Your task to perform on an android device: Go to Wikipedia Image 0: 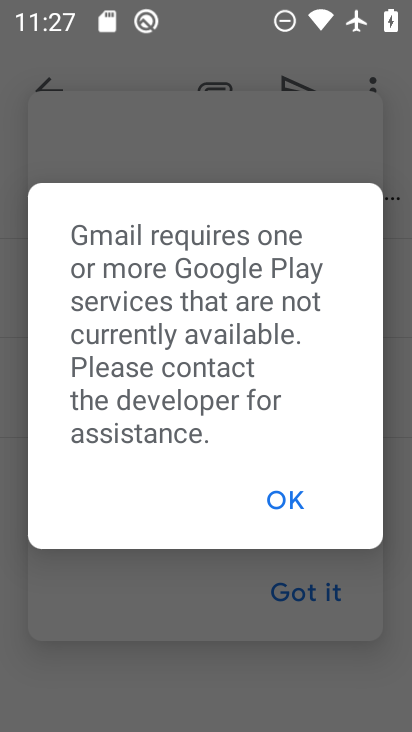
Step 0: press home button
Your task to perform on an android device: Go to Wikipedia Image 1: 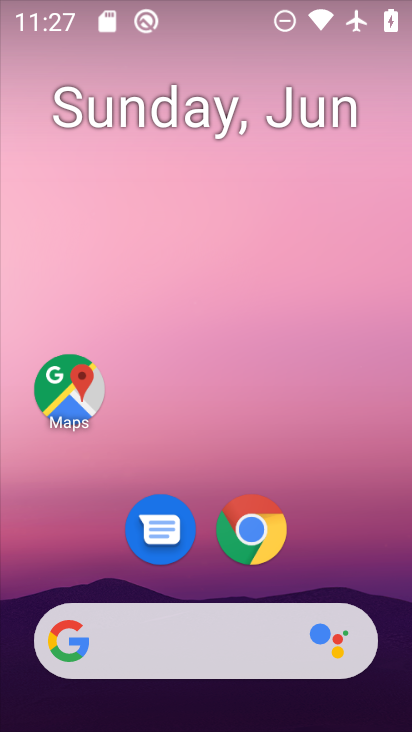
Step 1: click (251, 528)
Your task to perform on an android device: Go to Wikipedia Image 2: 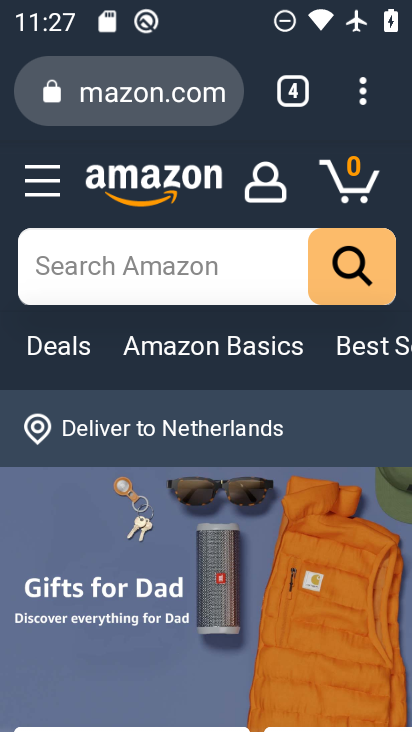
Step 2: click (194, 65)
Your task to perform on an android device: Go to Wikipedia Image 3: 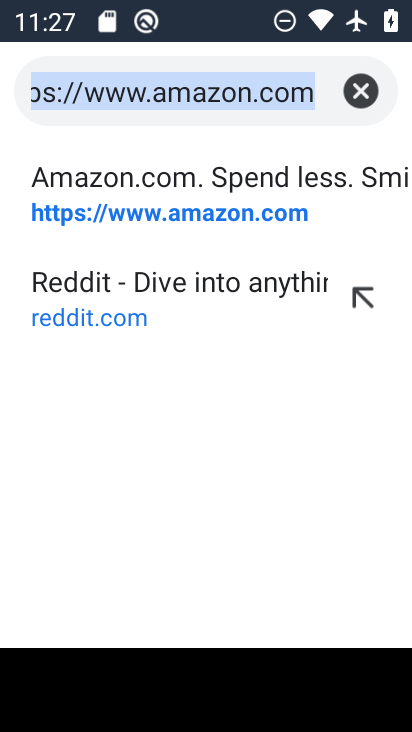
Step 3: click (362, 85)
Your task to perform on an android device: Go to Wikipedia Image 4: 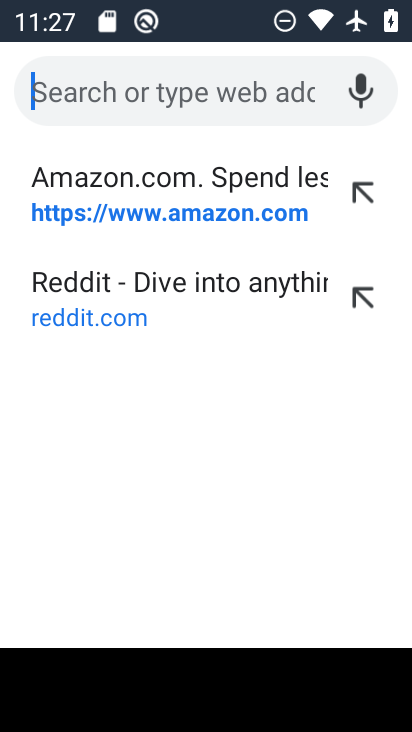
Step 4: type "wikipedia"
Your task to perform on an android device: Go to Wikipedia Image 5: 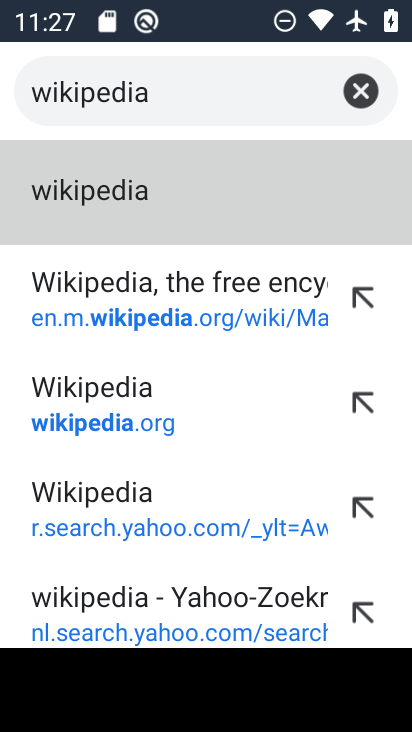
Step 5: click (94, 183)
Your task to perform on an android device: Go to Wikipedia Image 6: 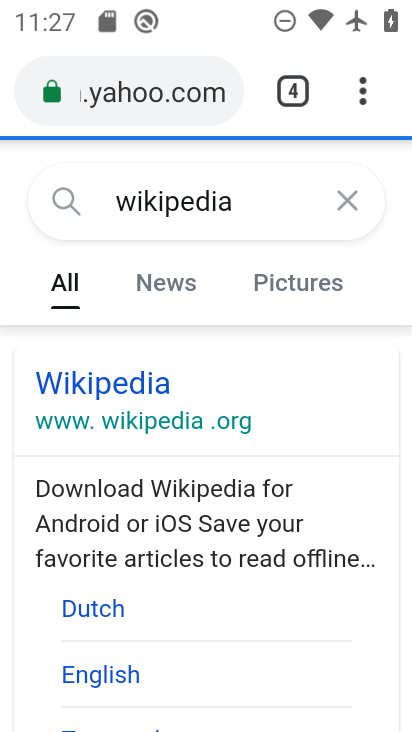
Step 6: click (128, 394)
Your task to perform on an android device: Go to Wikipedia Image 7: 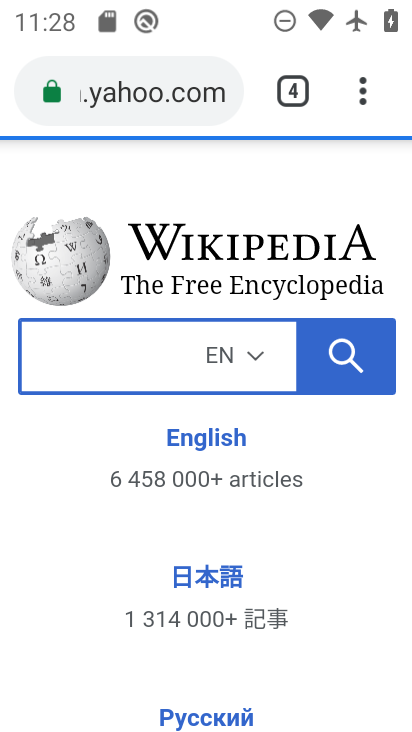
Step 7: task complete